Your task to perform on an android device: What's the weather today? Image 0: 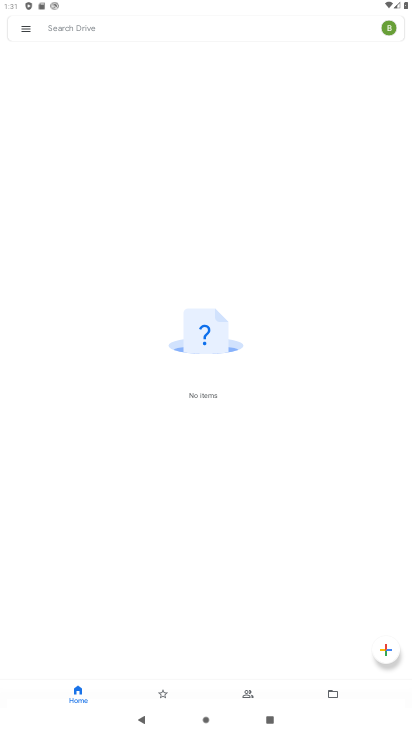
Step 0: press home button
Your task to perform on an android device: What's the weather today? Image 1: 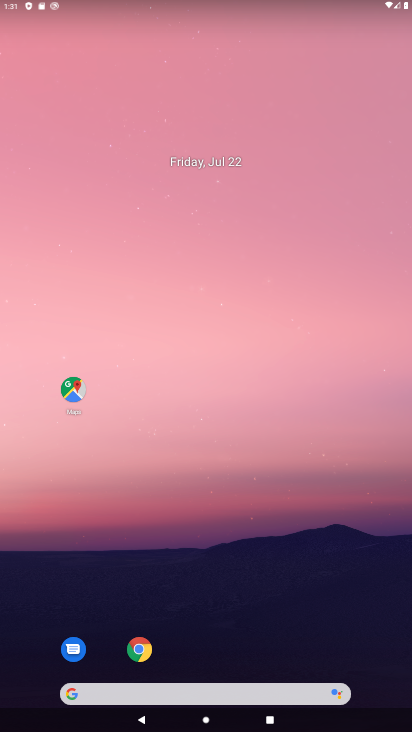
Step 1: click (210, 693)
Your task to perform on an android device: What's the weather today? Image 2: 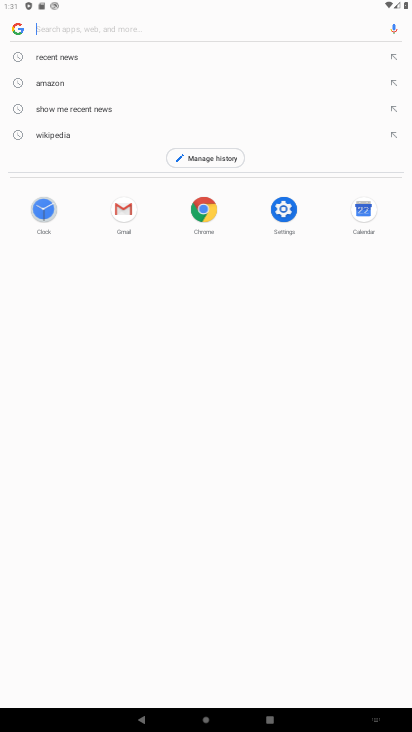
Step 2: type "weather"
Your task to perform on an android device: What's the weather today? Image 3: 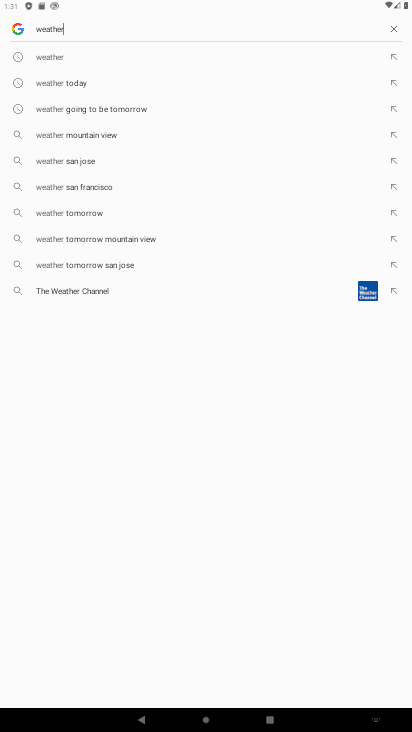
Step 3: click (107, 53)
Your task to perform on an android device: What's the weather today? Image 4: 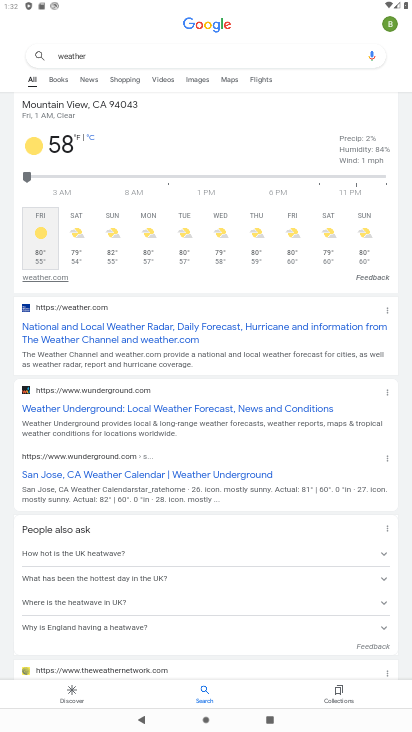
Step 4: task complete